Your task to perform on an android device: turn on javascript in the chrome app Image 0: 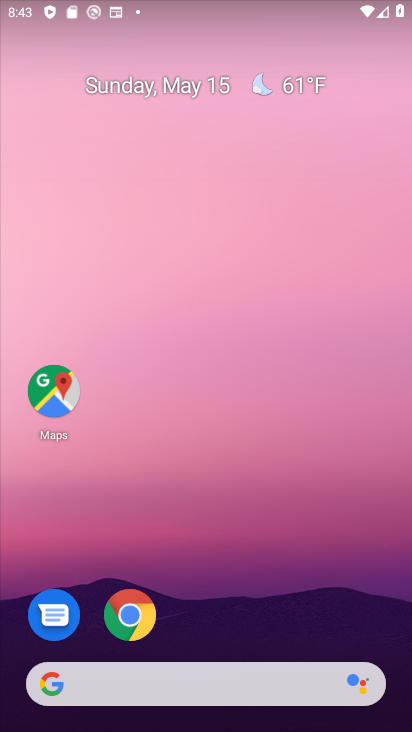
Step 0: drag from (248, 521) to (140, 25)
Your task to perform on an android device: turn on javascript in the chrome app Image 1: 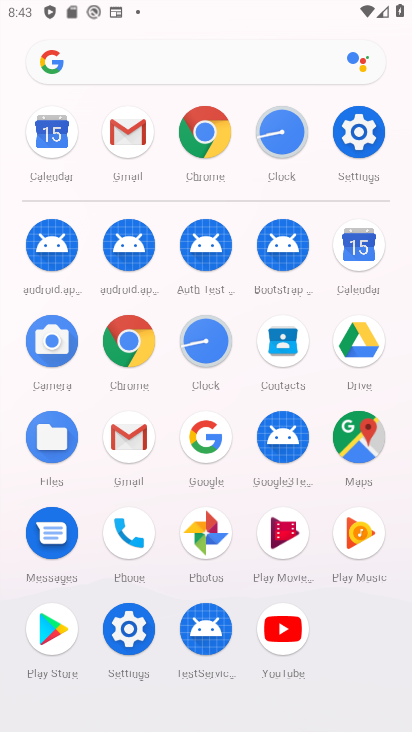
Step 1: click (129, 338)
Your task to perform on an android device: turn on javascript in the chrome app Image 2: 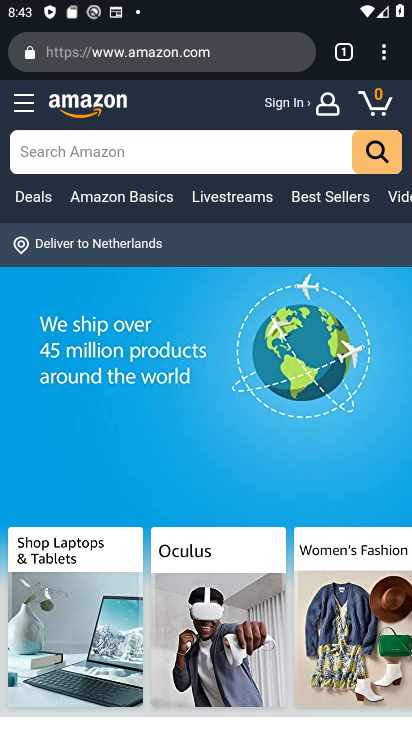
Step 2: drag from (381, 54) to (211, 627)
Your task to perform on an android device: turn on javascript in the chrome app Image 3: 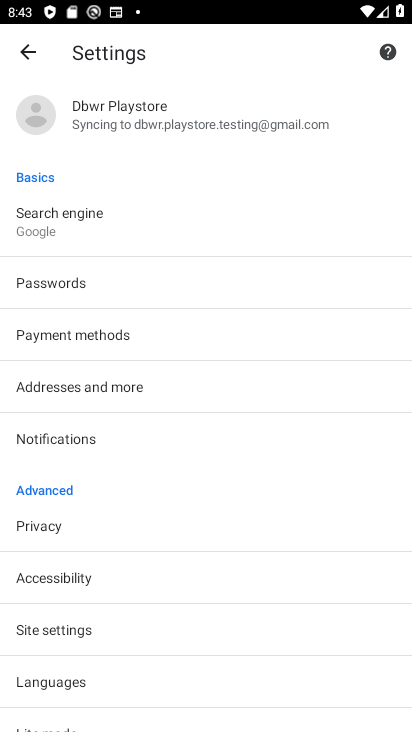
Step 3: click (92, 621)
Your task to perform on an android device: turn on javascript in the chrome app Image 4: 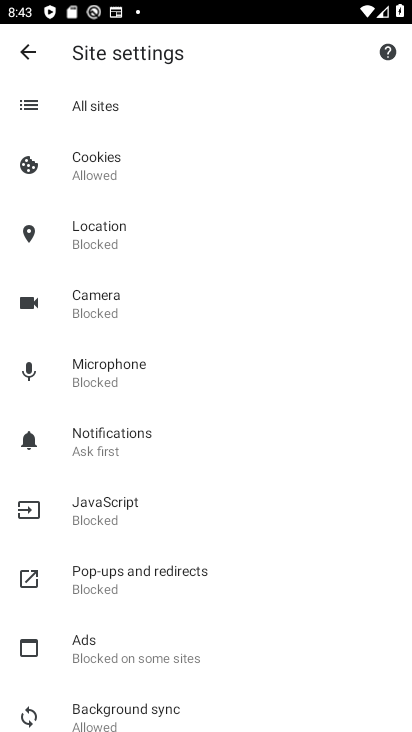
Step 4: click (141, 517)
Your task to perform on an android device: turn on javascript in the chrome app Image 5: 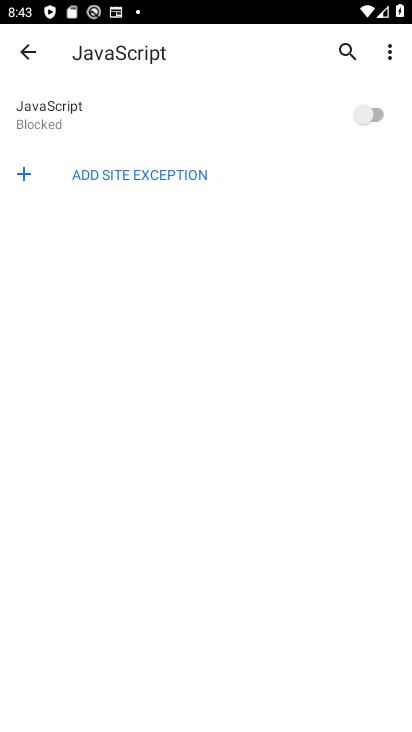
Step 5: click (376, 100)
Your task to perform on an android device: turn on javascript in the chrome app Image 6: 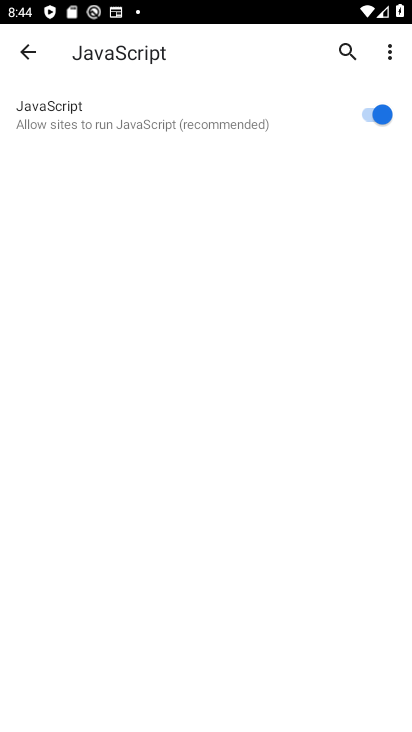
Step 6: task complete